Your task to perform on an android device: Go to Android settings Image 0: 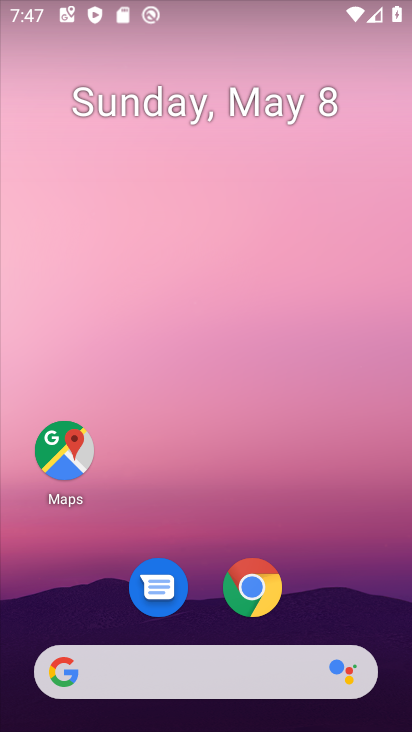
Step 0: drag from (205, 540) to (196, 28)
Your task to perform on an android device: Go to Android settings Image 1: 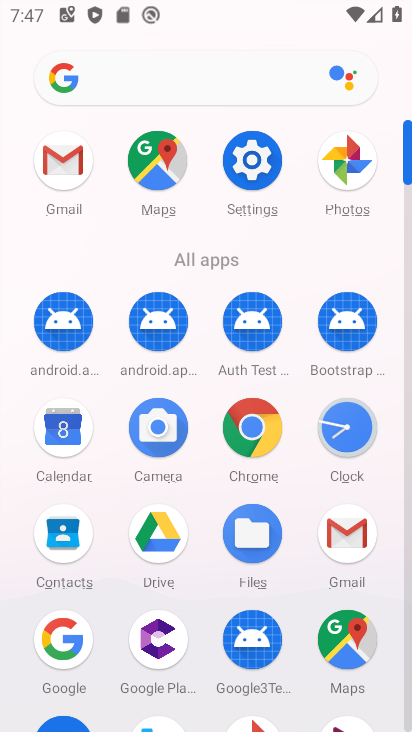
Step 1: click (253, 159)
Your task to perform on an android device: Go to Android settings Image 2: 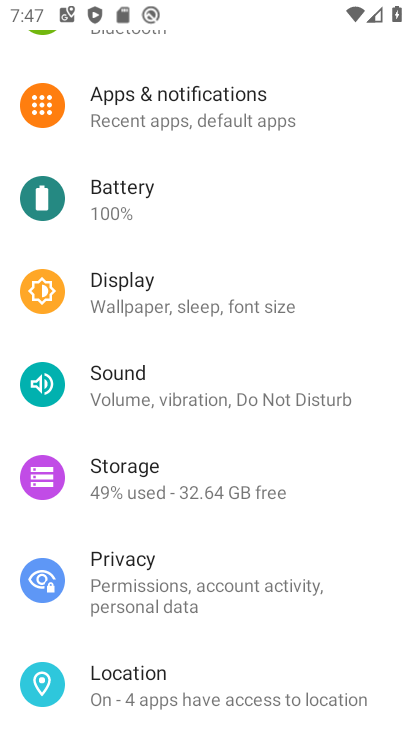
Step 2: task complete